Your task to perform on an android device: check the backup settings in the google photos Image 0: 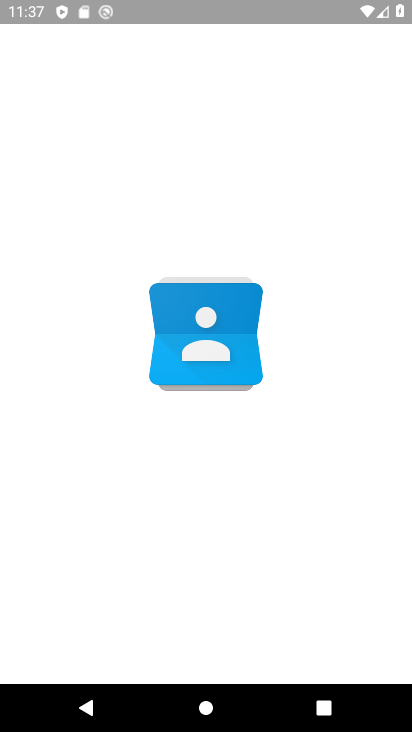
Step 0: drag from (294, 528) to (244, 36)
Your task to perform on an android device: check the backup settings in the google photos Image 1: 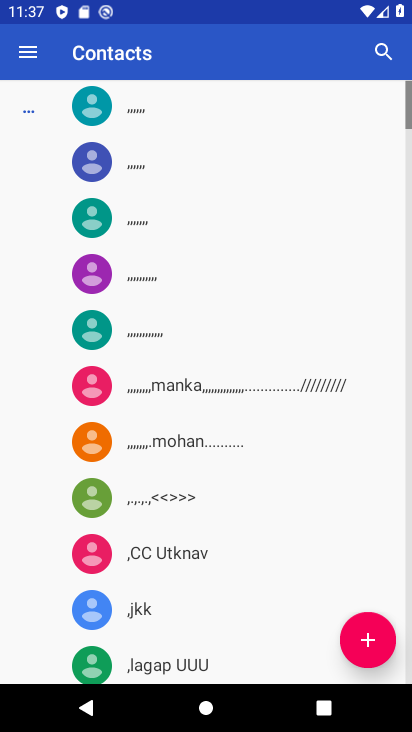
Step 1: press home button
Your task to perform on an android device: check the backup settings in the google photos Image 2: 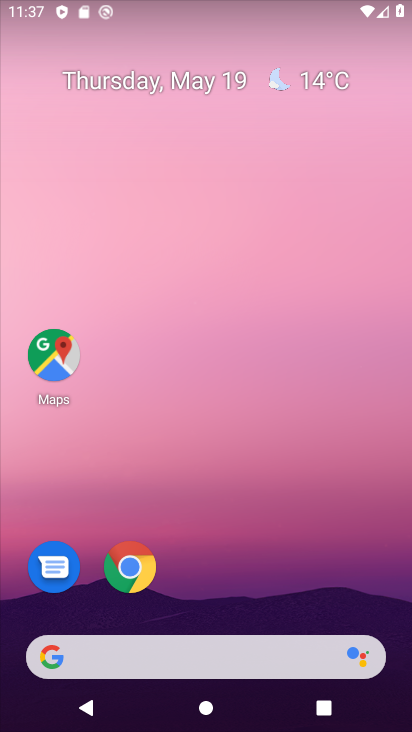
Step 2: drag from (312, 523) to (245, 57)
Your task to perform on an android device: check the backup settings in the google photos Image 3: 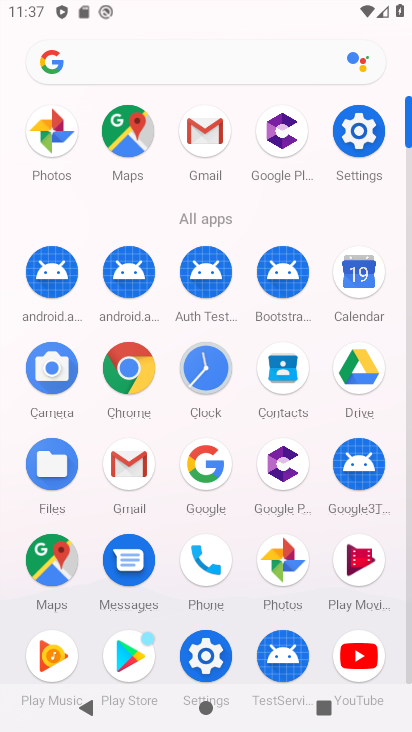
Step 3: click (46, 128)
Your task to perform on an android device: check the backup settings in the google photos Image 4: 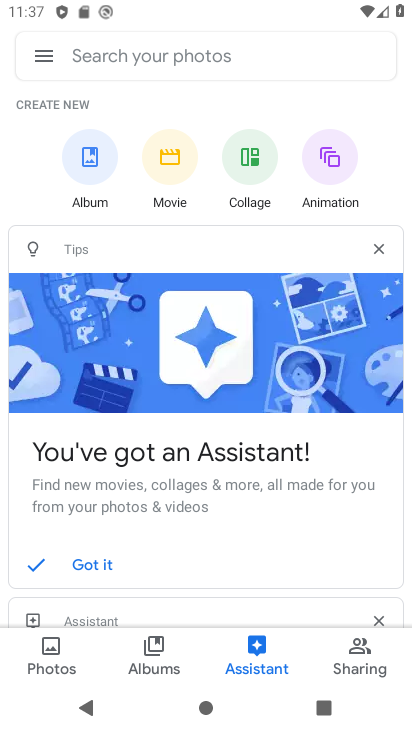
Step 4: click (37, 55)
Your task to perform on an android device: check the backup settings in the google photos Image 5: 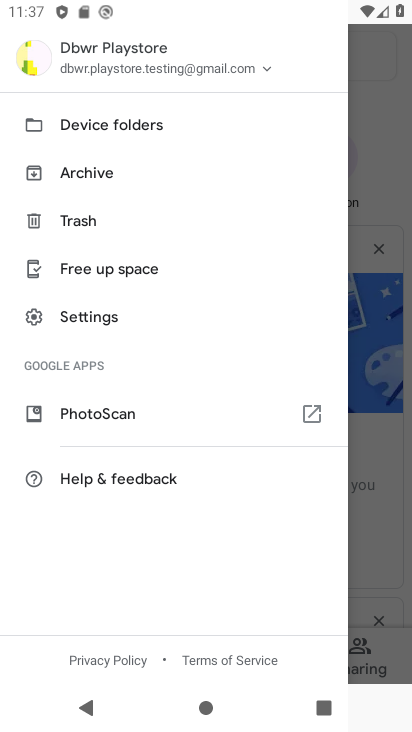
Step 5: click (72, 315)
Your task to perform on an android device: check the backup settings in the google photos Image 6: 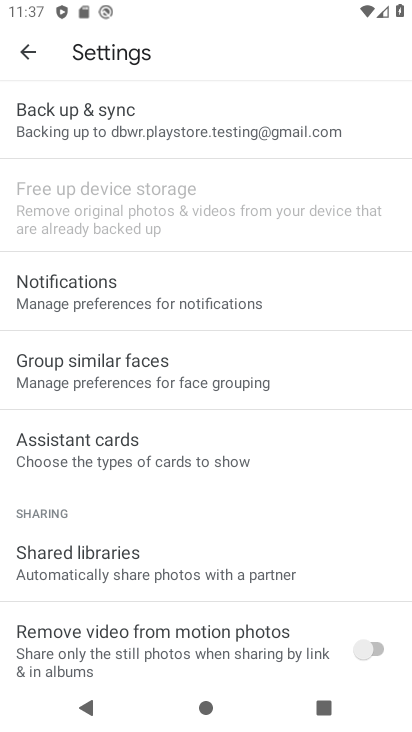
Step 6: click (123, 125)
Your task to perform on an android device: check the backup settings in the google photos Image 7: 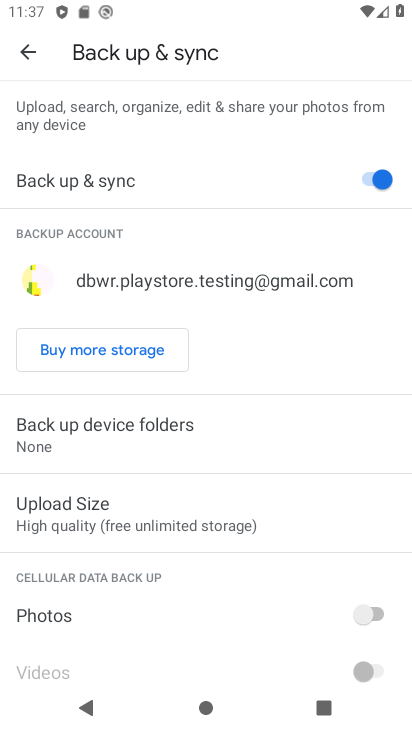
Step 7: task complete